Your task to perform on an android device: open app "Move to iOS" (install if not already installed) and go to login screen Image 0: 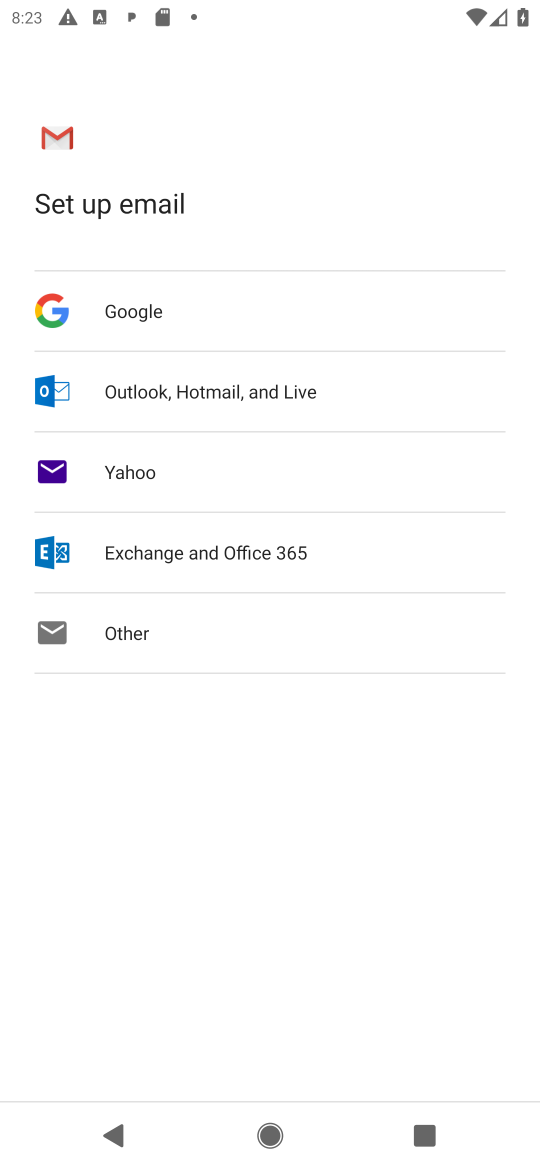
Step 0: press home button
Your task to perform on an android device: open app "Move to iOS" (install if not already installed) and go to login screen Image 1: 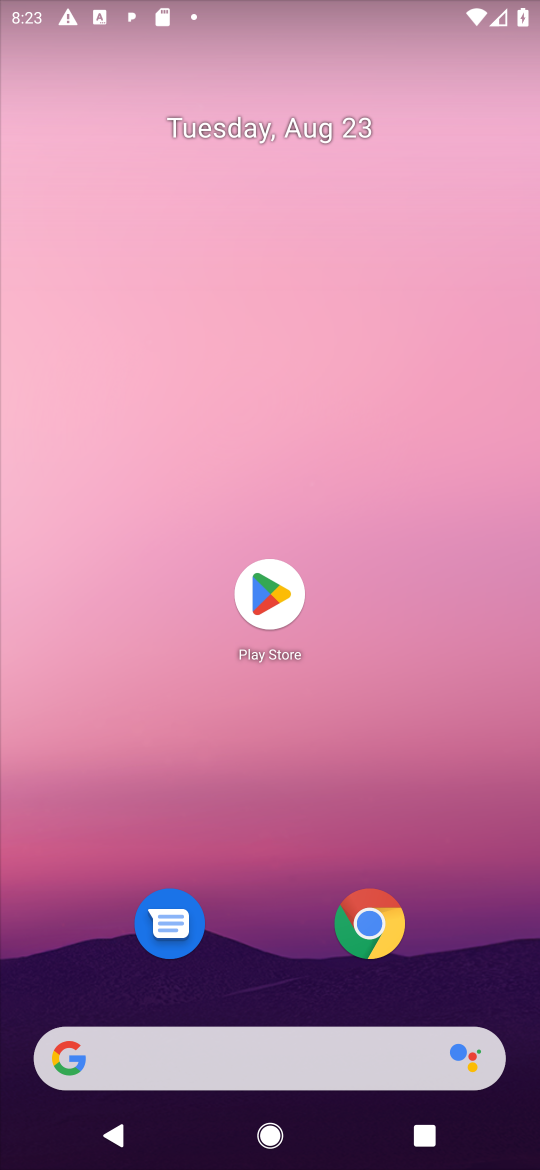
Step 1: click (277, 596)
Your task to perform on an android device: open app "Move to iOS" (install if not already installed) and go to login screen Image 2: 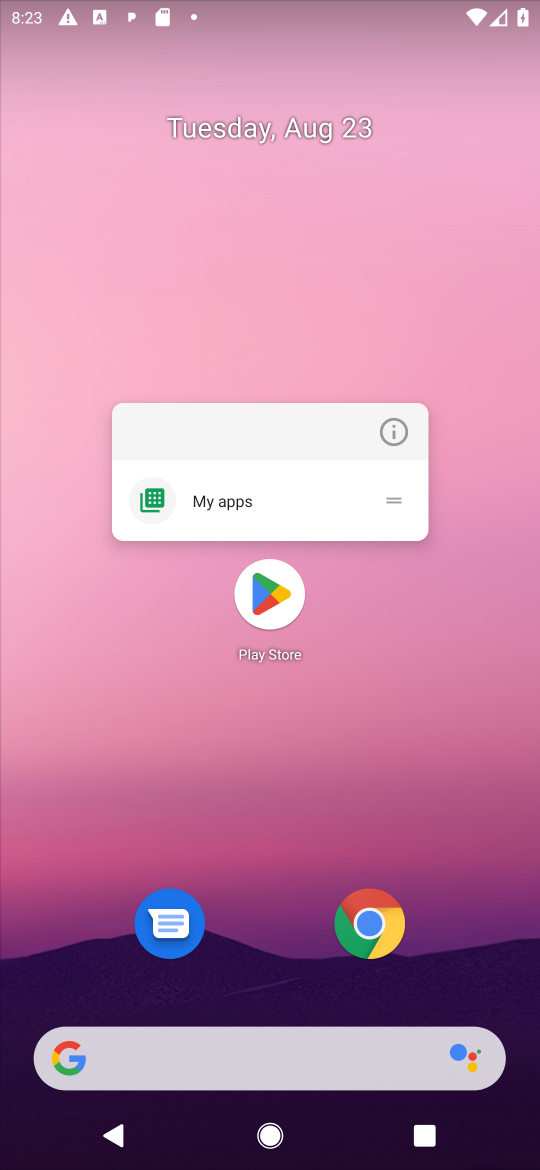
Step 2: click (266, 599)
Your task to perform on an android device: open app "Move to iOS" (install if not already installed) and go to login screen Image 3: 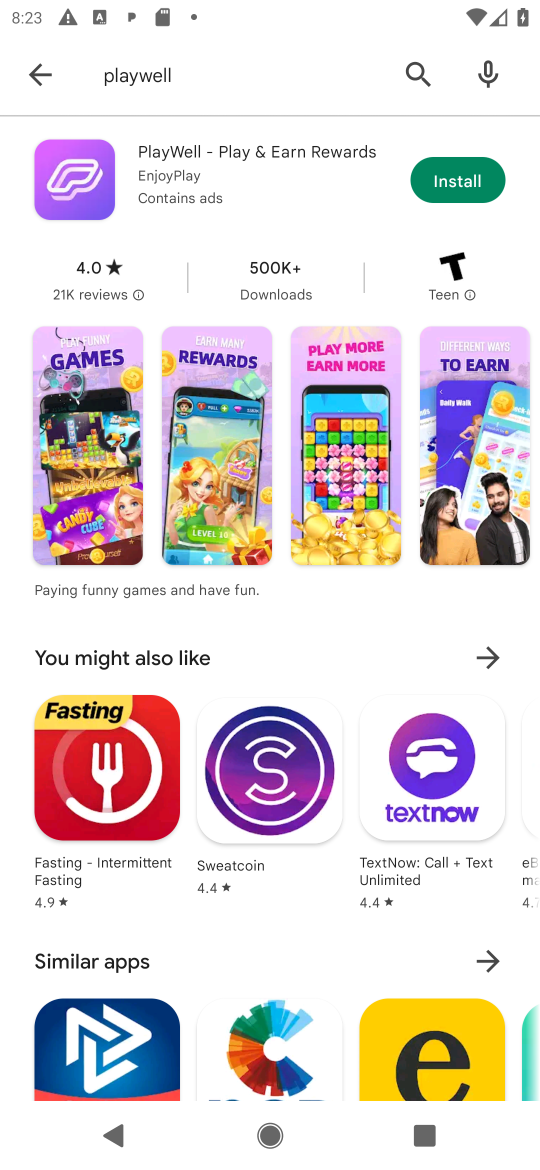
Step 3: click (413, 69)
Your task to perform on an android device: open app "Move to iOS" (install if not already installed) and go to login screen Image 4: 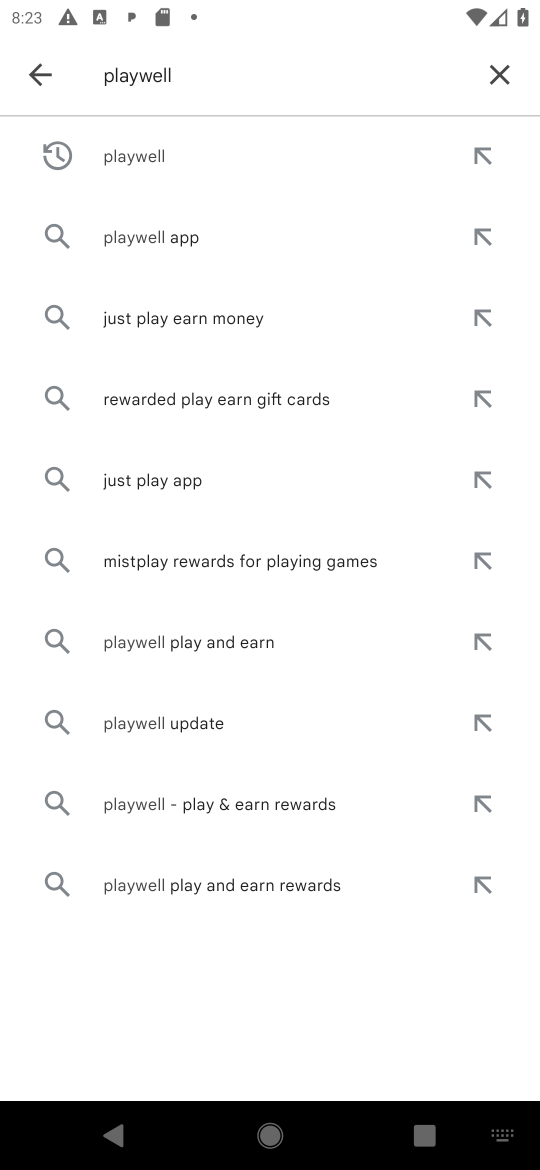
Step 4: click (505, 73)
Your task to perform on an android device: open app "Move to iOS" (install if not already installed) and go to login screen Image 5: 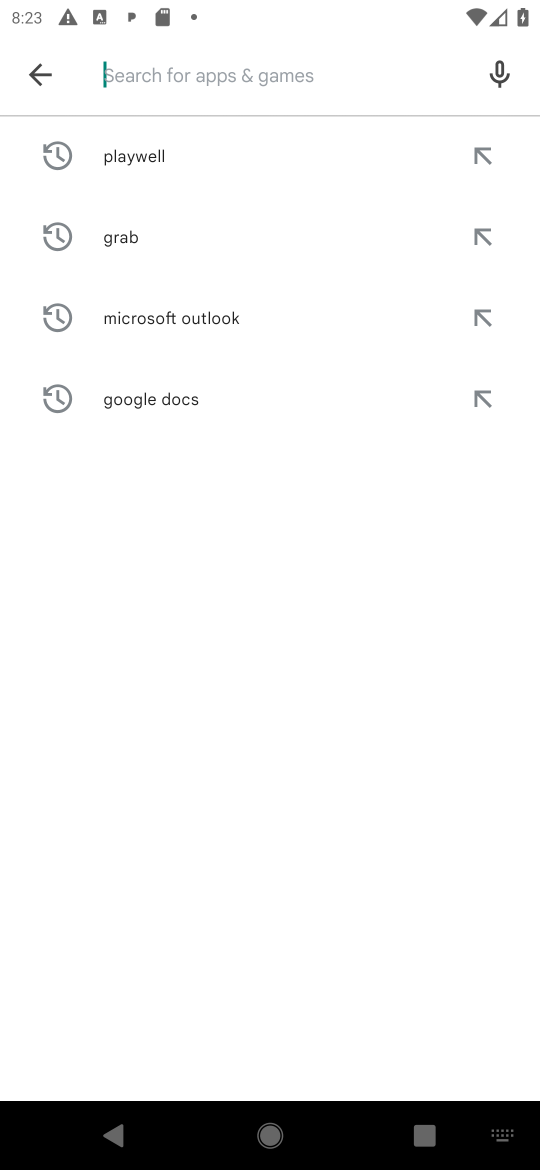
Step 5: type "Move to iOS"
Your task to perform on an android device: open app "Move to iOS" (install if not already installed) and go to login screen Image 6: 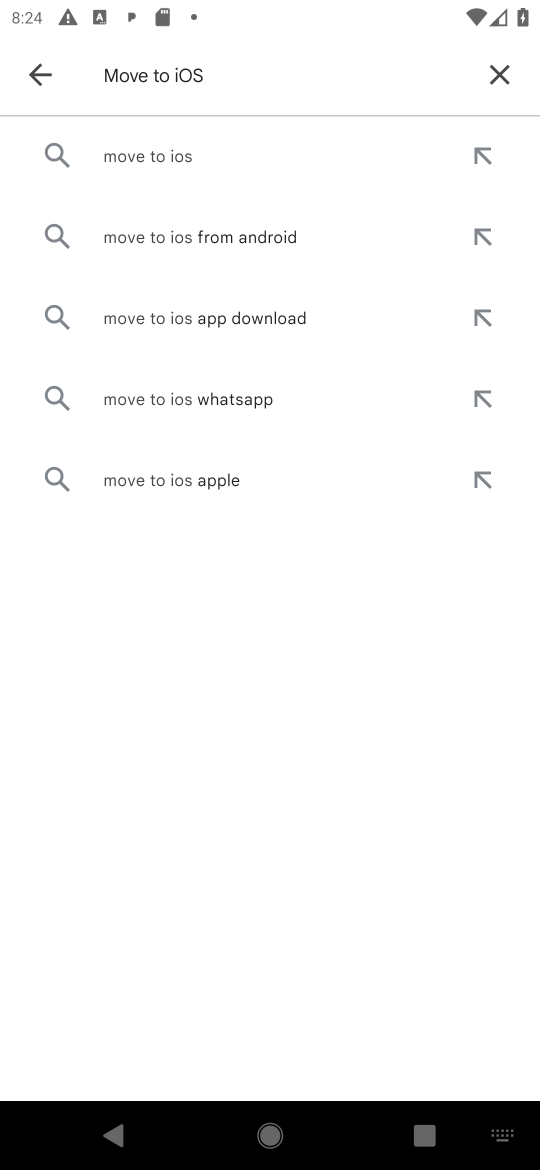
Step 6: click (164, 163)
Your task to perform on an android device: open app "Move to iOS" (install if not already installed) and go to login screen Image 7: 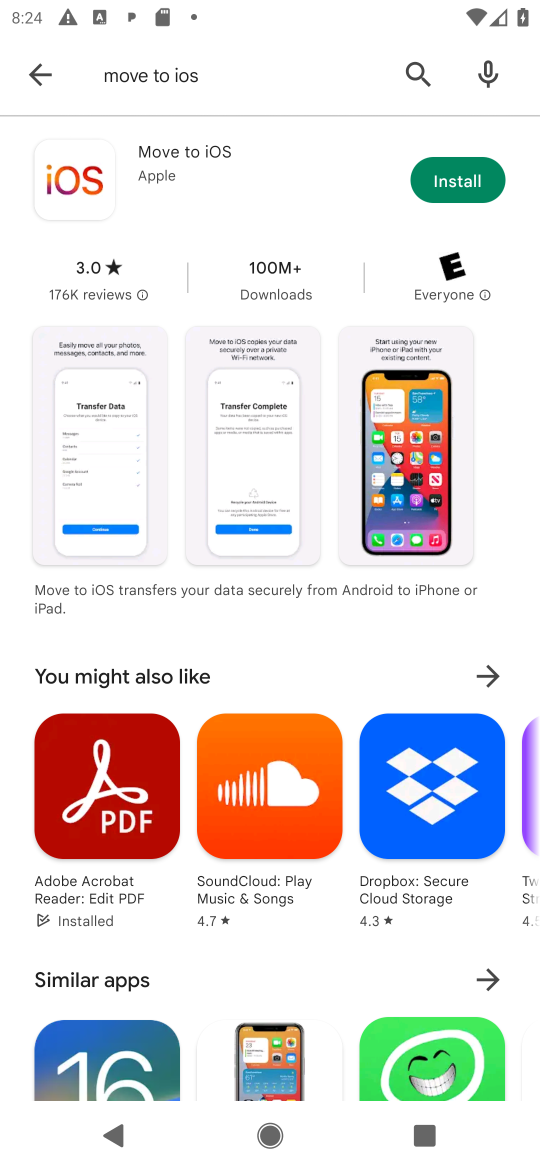
Step 7: click (469, 188)
Your task to perform on an android device: open app "Move to iOS" (install if not already installed) and go to login screen Image 8: 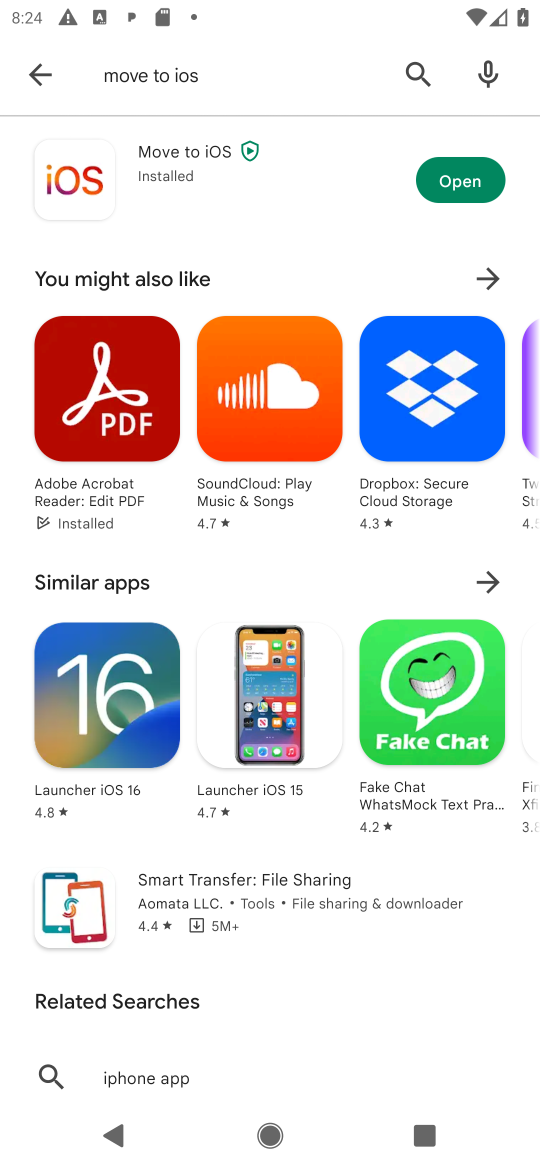
Step 8: click (469, 191)
Your task to perform on an android device: open app "Move to iOS" (install if not already installed) and go to login screen Image 9: 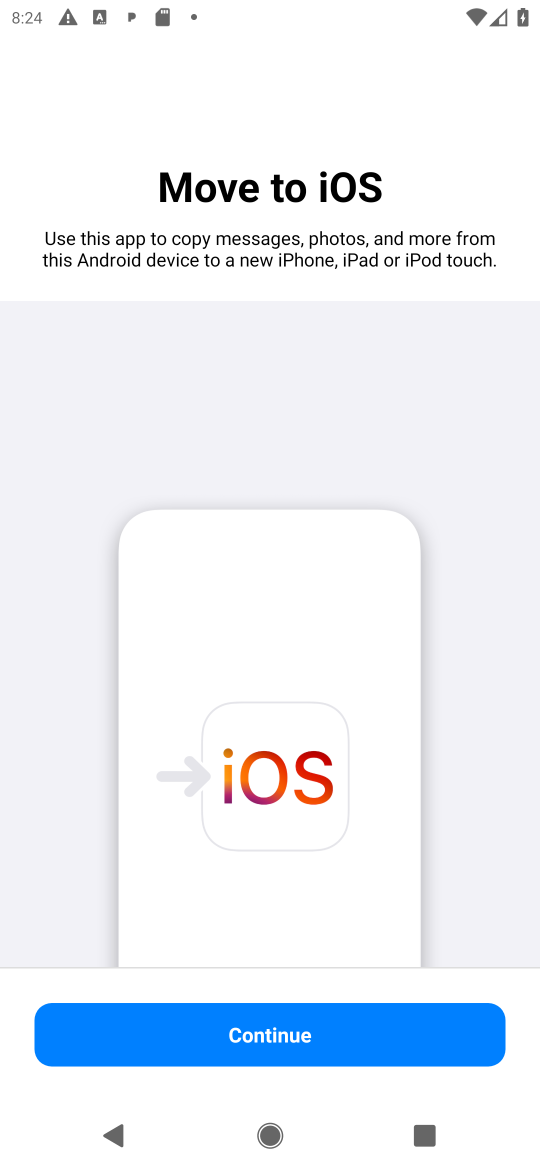
Step 9: click (264, 1029)
Your task to perform on an android device: open app "Move to iOS" (install if not already installed) and go to login screen Image 10: 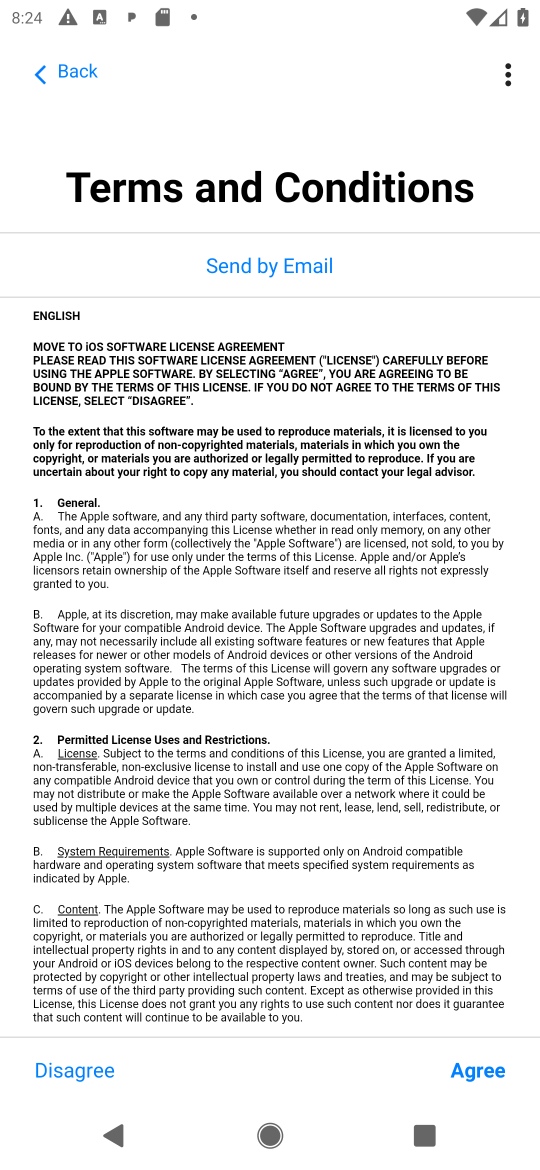
Step 10: click (479, 1074)
Your task to perform on an android device: open app "Move to iOS" (install if not already installed) and go to login screen Image 11: 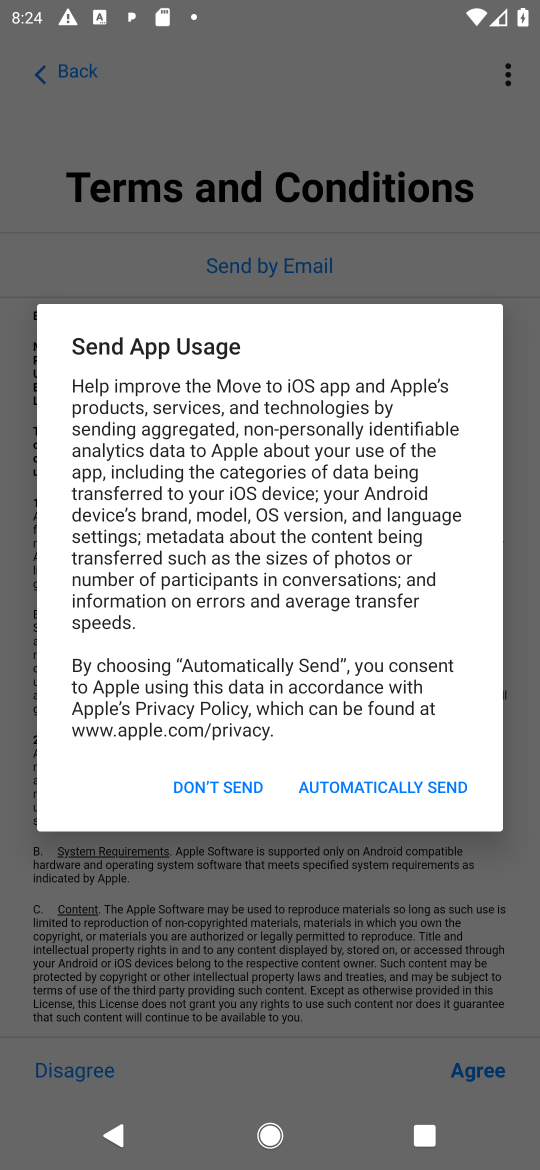
Step 11: task complete